Your task to perform on an android device: Open Google Chrome Image 0: 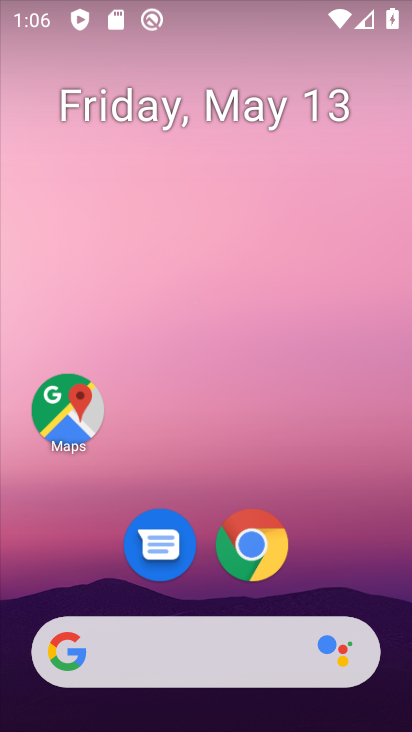
Step 0: click (253, 533)
Your task to perform on an android device: Open Google Chrome Image 1: 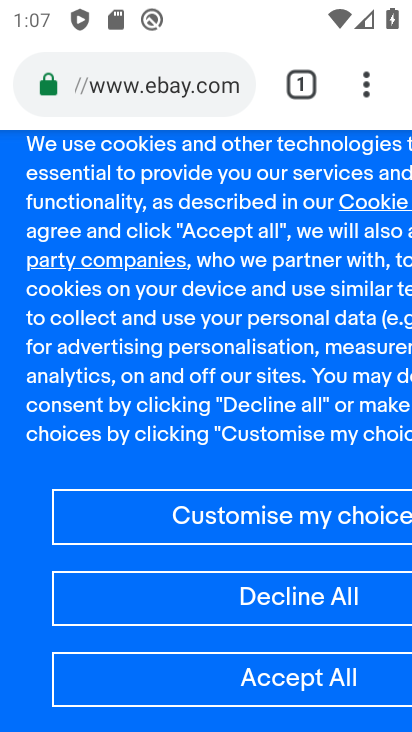
Step 1: task complete